Your task to perform on an android device: move a message to another label in the gmail app Image 0: 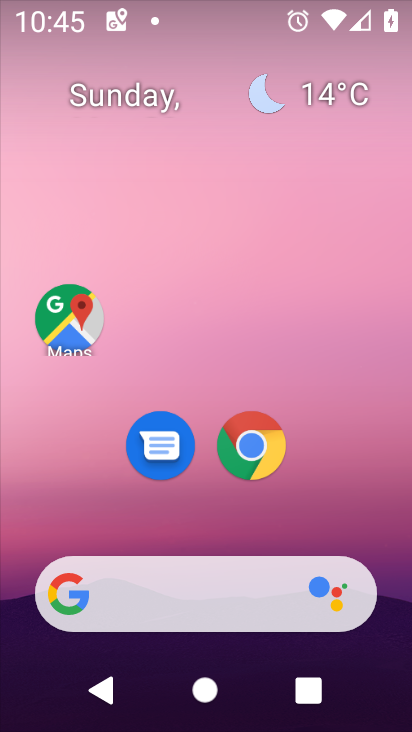
Step 0: click (329, 79)
Your task to perform on an android device: move a message to another label in the gmail app Image 1: 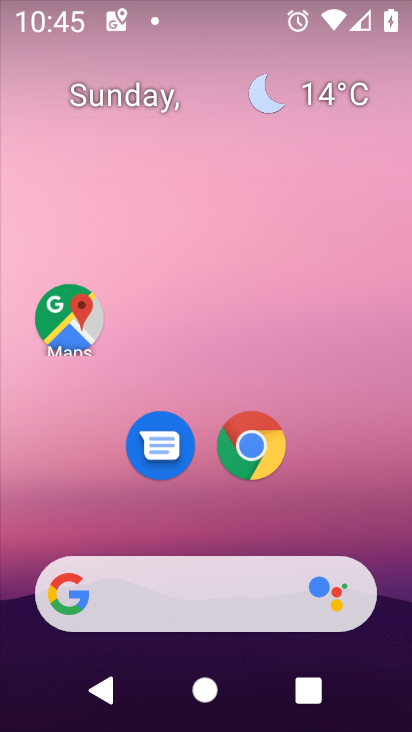
Step 1: drag from (224, 499) to (230, 99)
Your task to perform on an android device: move a message to another label in the gmail app Image 2: 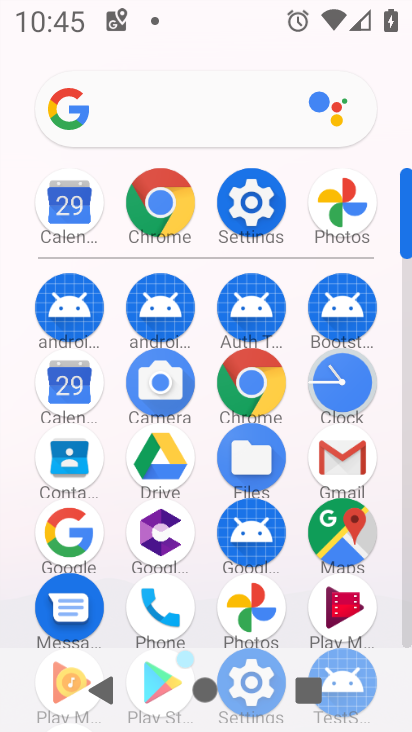
Step 2: click (343, 440)
Your task to perform on an android device: move a message to another label in the gmail app Image 3: 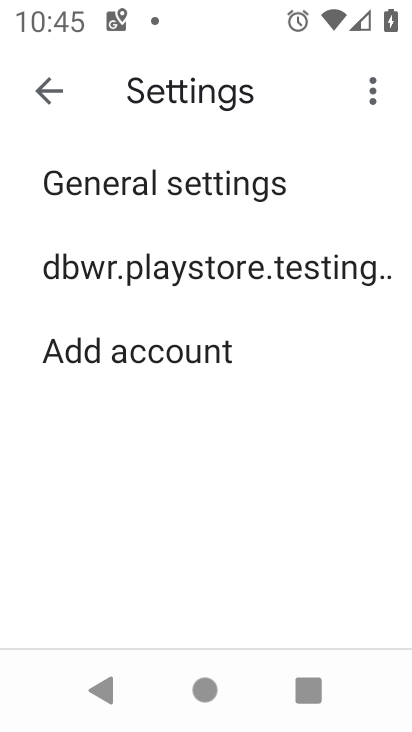
Step 3: click (26, 93)
Your task to perform on an android device: move a message to another label in the gmail app Image 4: 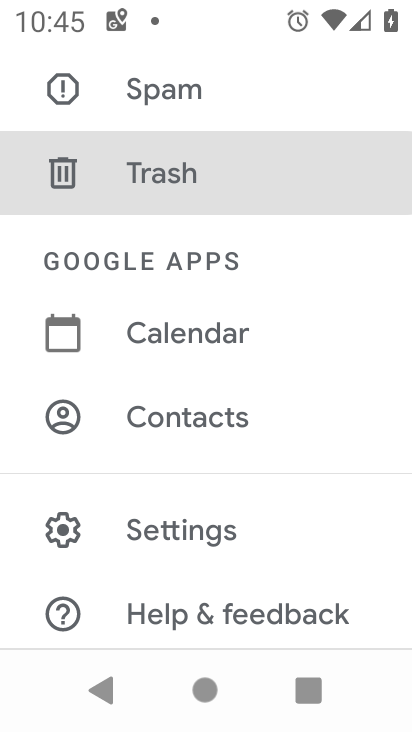
Step 4: drag from (236, 162) to (236, 716)
Your task to perform on an android device: move a message to another label in the gmail app Image 5: 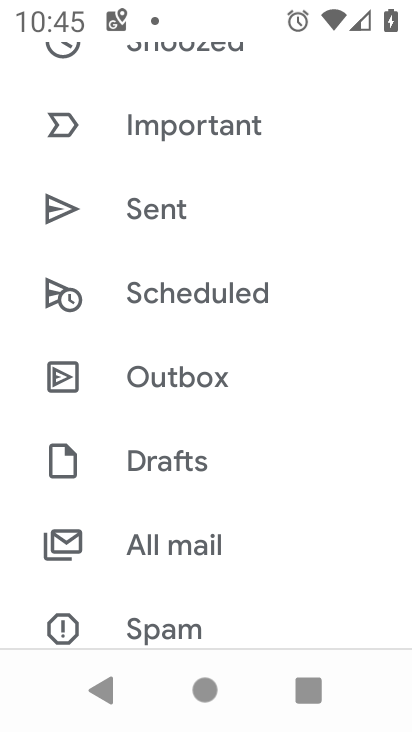
Step 5: drag from (206, 187) to (306, 703)
Your task to perform on an android device: move a message to another label in the gmail app Image 6: 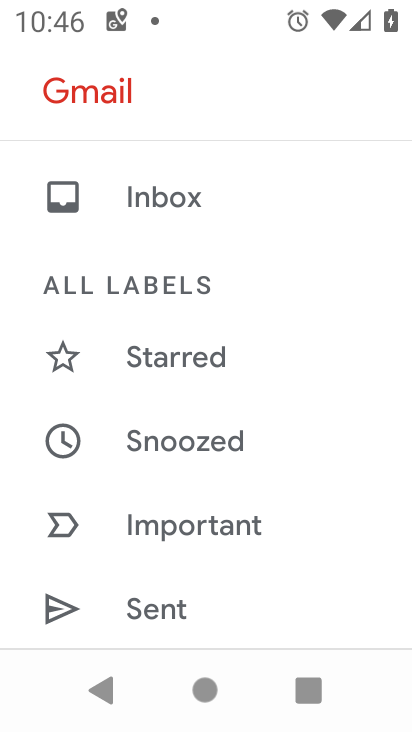
Step 6: click (159, 217)
Your task to perform on an android device: move a message to another label in the gmail app Image 7: 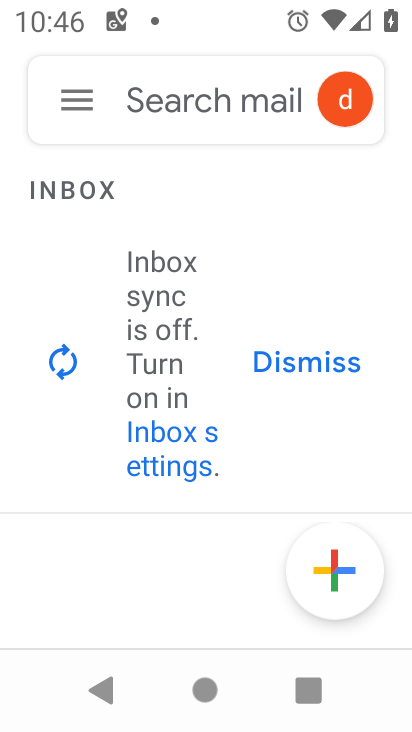
Step 7: task complete